Your task to perform on an android device: Check the news Image 0: 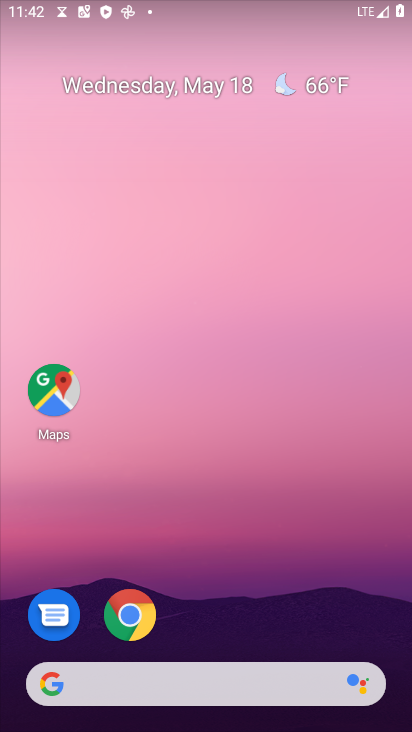
Step 0: drag from (214, 322) to (201, 10)
Your task to perform on an android device: Check the news Image 1: 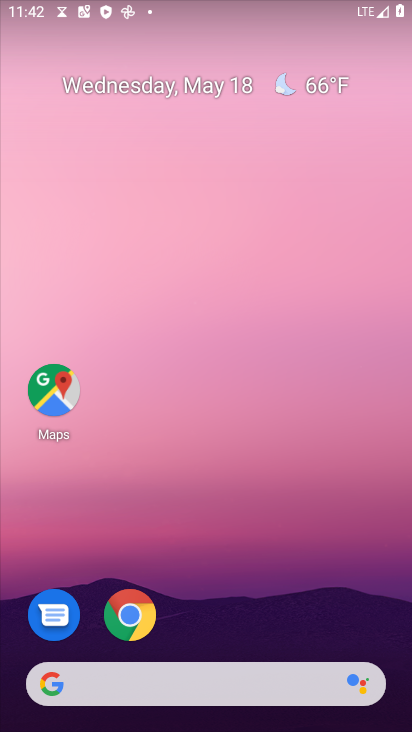
Step 1: drag from (22, 539) to (39, 22)
Your task to perform on an android device: Check the news Image 2: 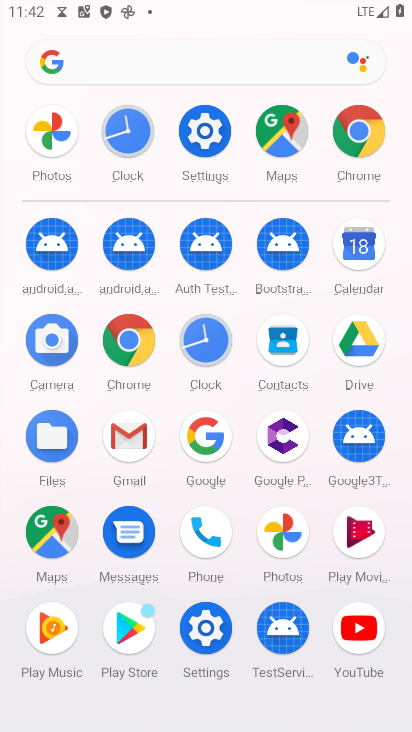
Step 2: click (130, 340)
Your task to perform on an android device: Check the news Image 3: 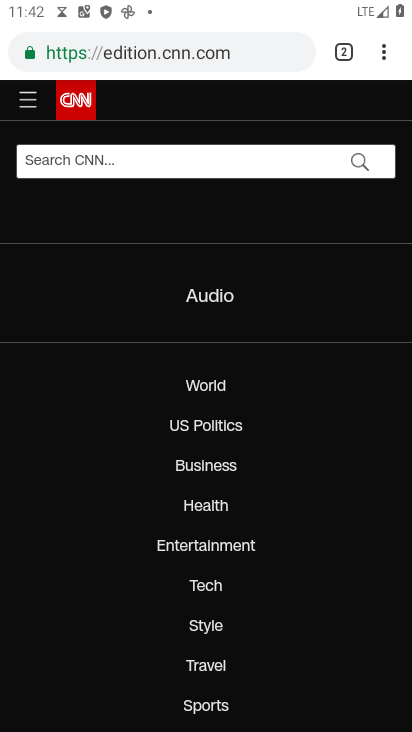
Step 3: click (144, 37)
Your task to perform on an android device: Check the news Image 4: 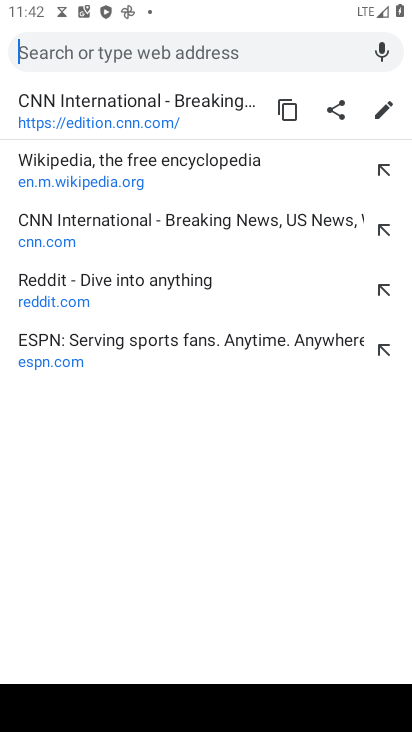
Step 4: type "Check the news"
Your task to perform on an android device: Check the news Image 5: 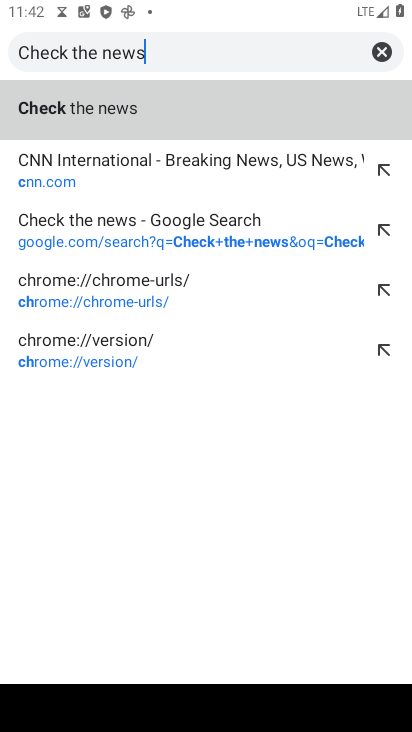
Step 5: type ""
Your task to perform on an android device: Check the news Image 6: 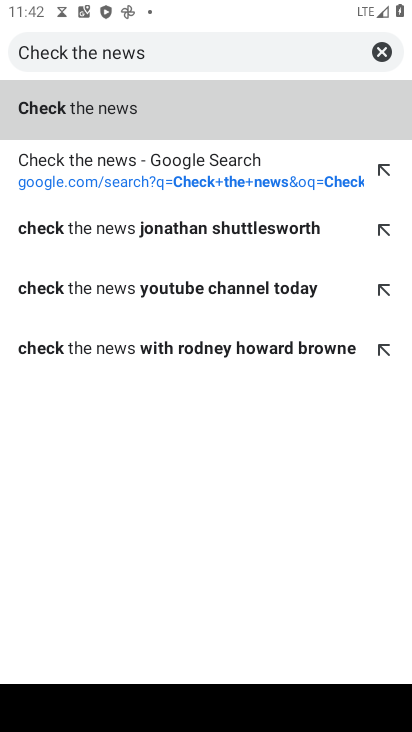
Step 6: click (136, 119)
Your task to perform on an android device: Check the news Image 7: 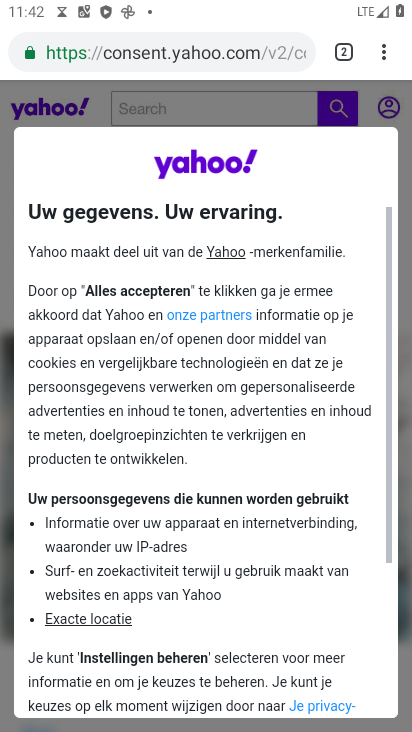
Step 7: drag from (249, 591) to (282, 160)
Your task to perform on an android device: Check the news Image 8: 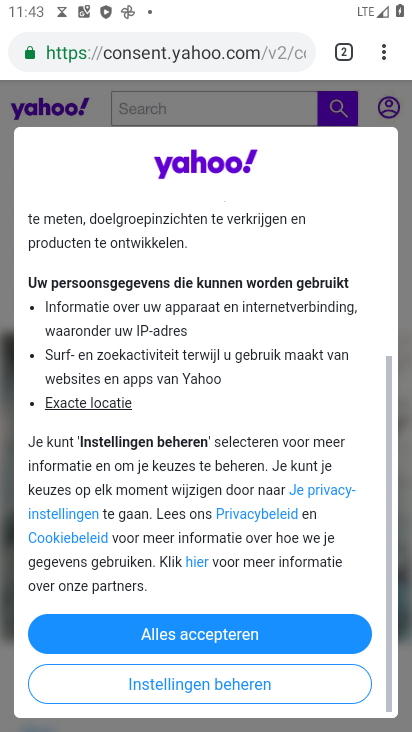
Step 8: click (200, 634)
Your task to perform on an android device: Check the news Image 9: 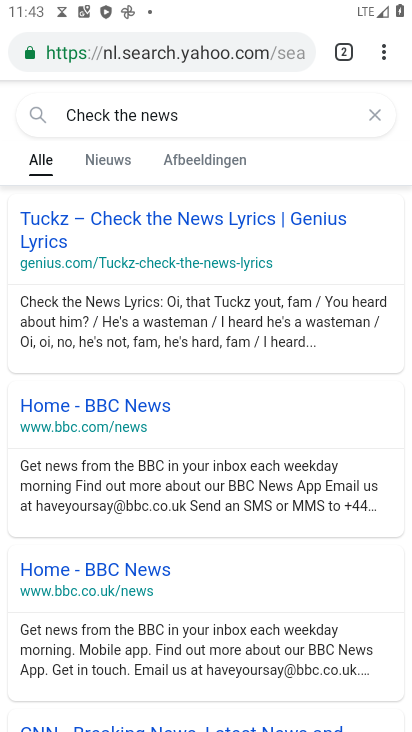
Step 9: click (118, 172)
Your task to perform on an android device: Check the news Image 10: 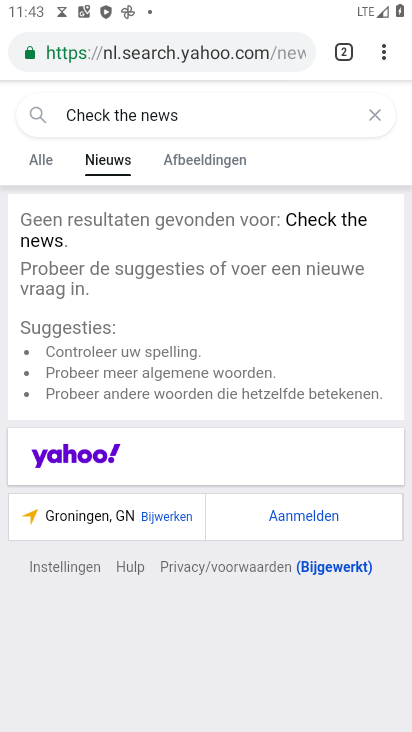
Step 10: click (39, 162)
Your task to perform on an android device: Check the news Image 11: 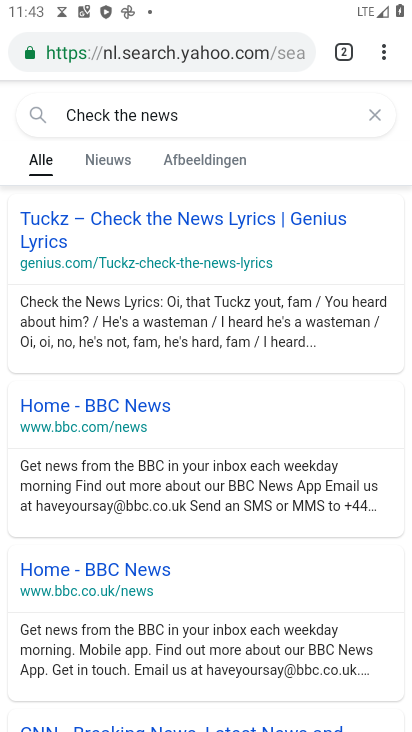
Step 11: click (234, 43)
Your task to perform on an android device: Check the news Image 12: 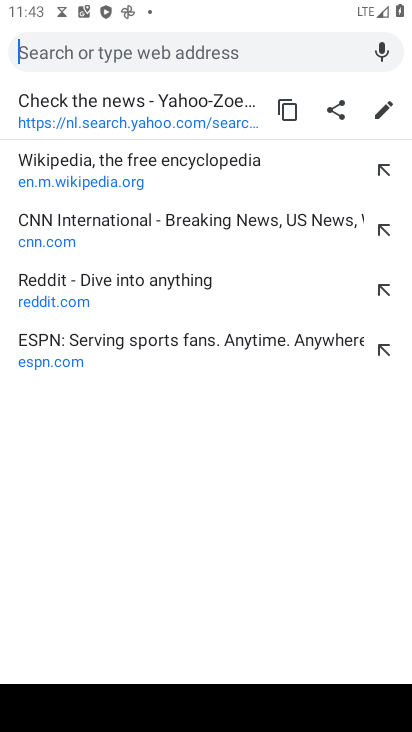
Step 12: type "Check the news"
Your task to perform on an android device: Check the news Image 13: 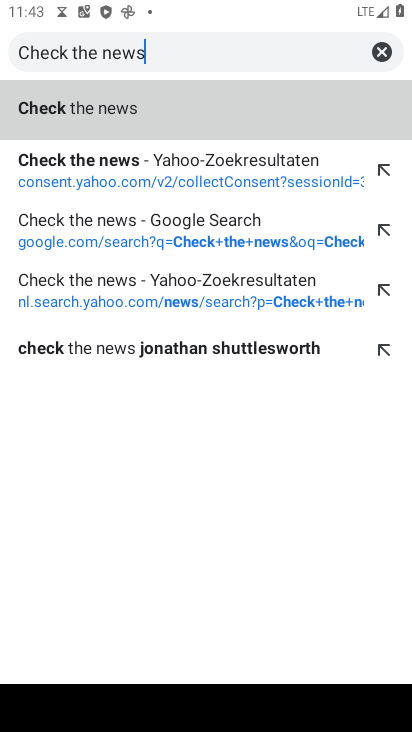
Step 13: type ""
Your task to perform on an android device: Check the news Image 14: 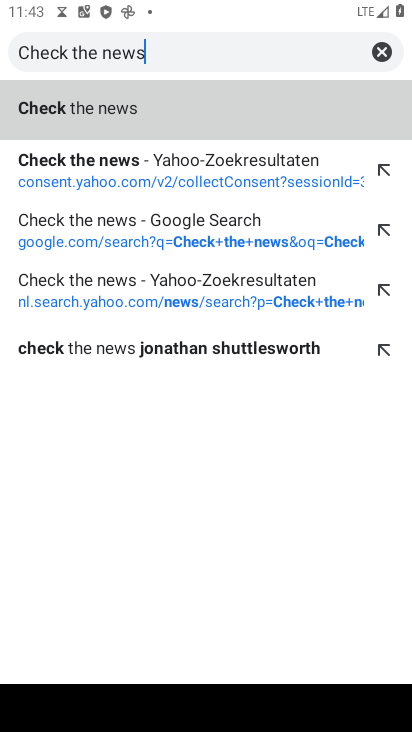
Step 14: click (53, 107)
Your task to perform on an android device: Check the news Image 15: 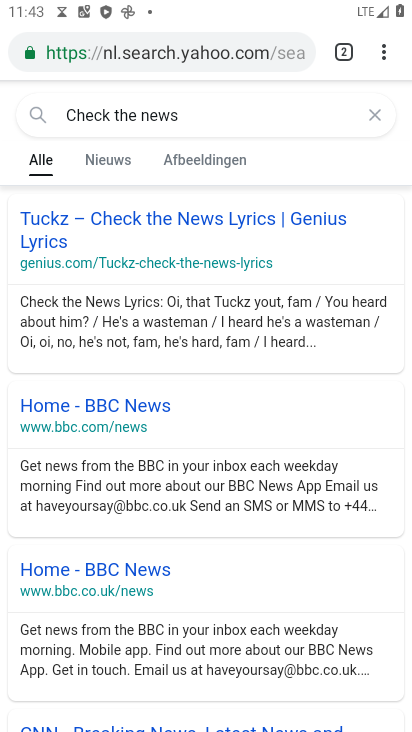
Step 15: task complete